Your task to perform on an android device: Open the Play Movies app and select the watchlist tab. Image 0: 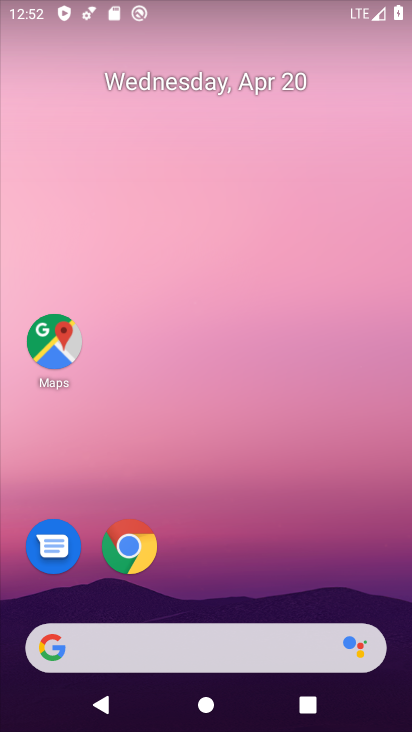
Step 0: drag from (164, 610) to (278, 200)
Your task to perform on an android device: Open the Play Movies app and select the watchlist tab. Image 1: 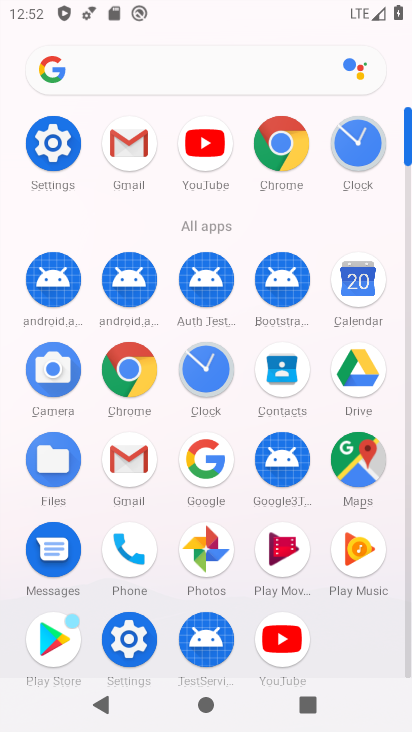
Step 1: click (296, 548)
Your task to perform on an android device: Open the Play Movies app and select the watchlist tab. Image 2: 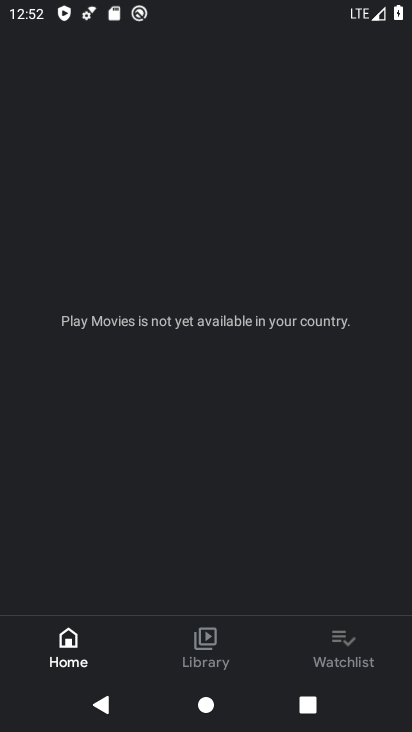
Step 2: click (357, 649)
Your task to perform on an android device: Open the Play Movies app and select the watchlist tab. Image 3: 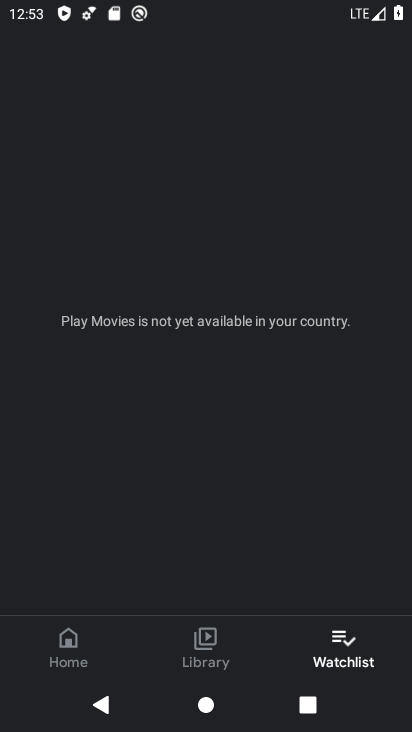
Step 3: task complete